Your task to perform on an android device: Is it going to rain today? Image 0: 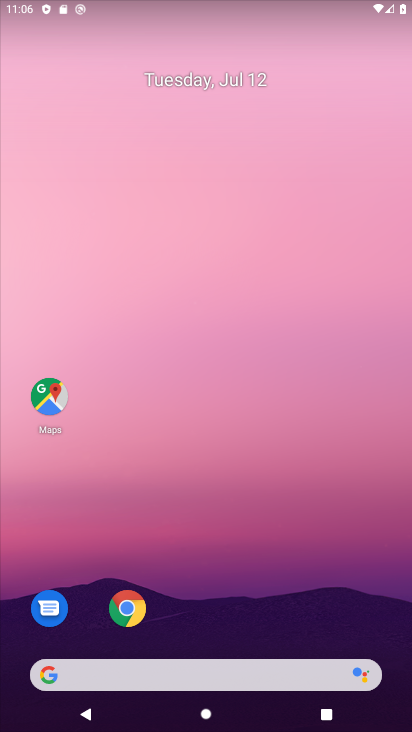
Step 0: click (224, 664)
Your task to perform on an android device: Is it going to rain today? Image 1: 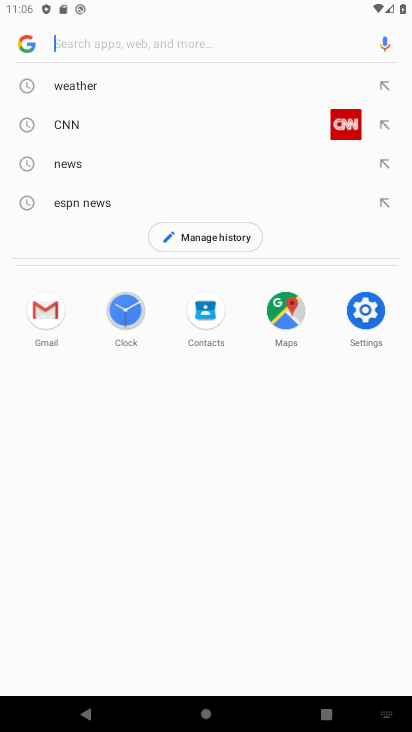
Step 1: click (167, 81)
Your task to perform on an android device: Is it going to rain today? Image 2: 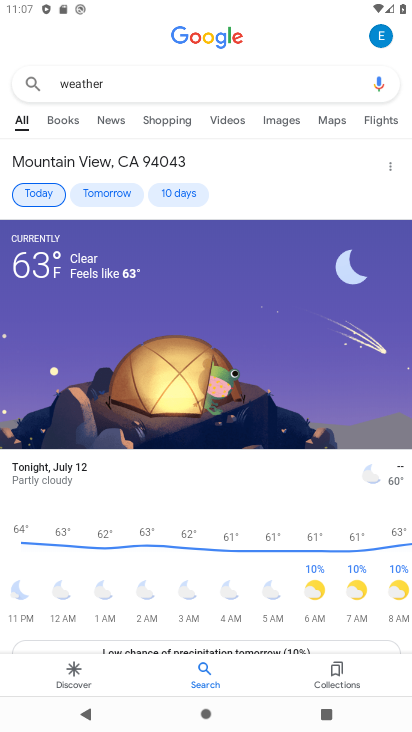
Step 2: task complete